Your task to perform on an android device: Open battery settings Image 0: 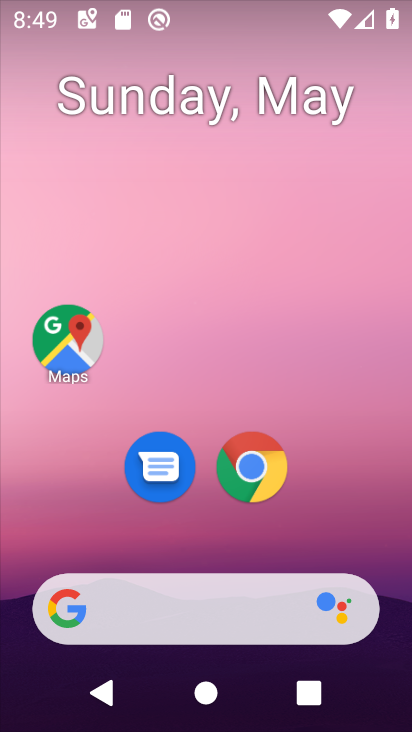
Step 0: drag from (396, 536) to (375, 119)
Your task to perform on an android device: Open battery settings Image 1: 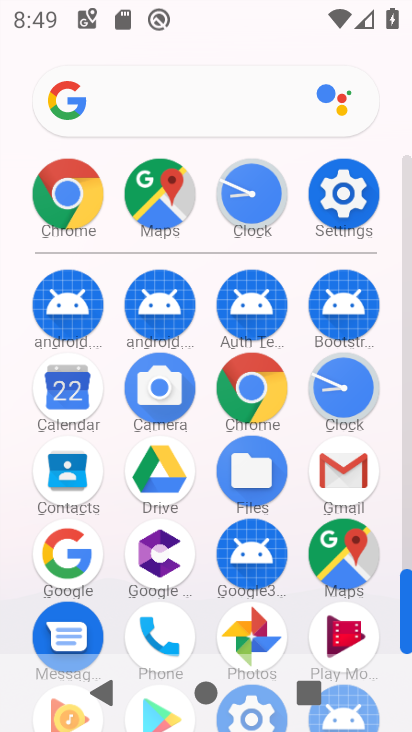
Step 1: click (357, 196)
Your task to perform on an android device: Open battery settings Image 2: 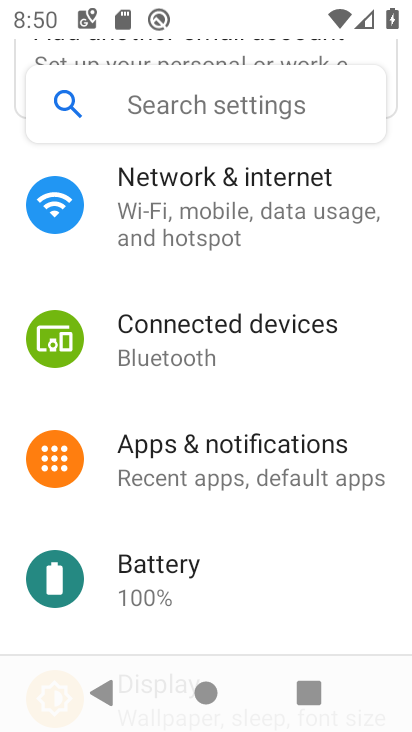
Step 2: click (184, 572)
Your task to perform on an android device: Open battery settings Image 3: 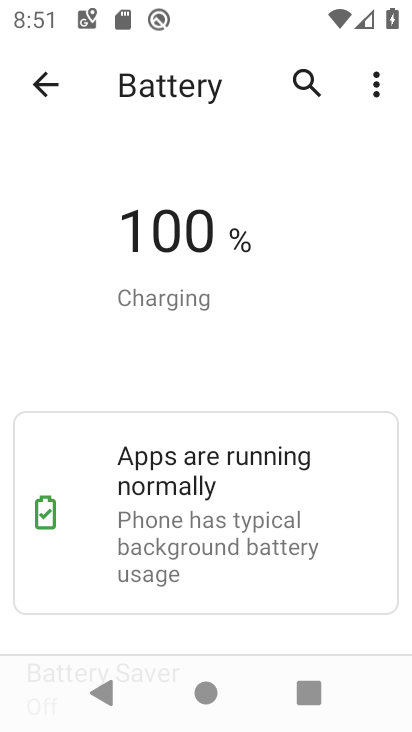
Step 3: task complete